Your task to perform on an android device: turn on sleep mode Image 0: 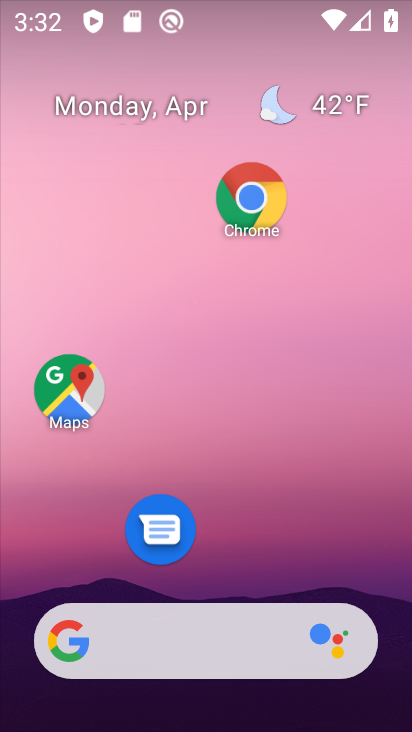
Step 0: drag from (249, 568) to (201, 147)
Your task to perform on an android device: turn on sleep mode Image 1: 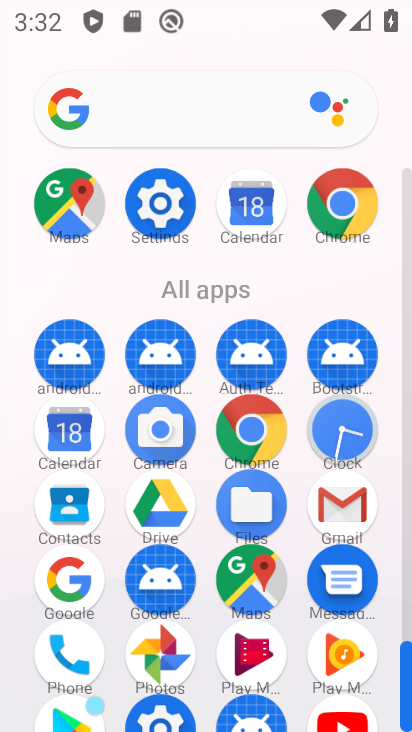
Step 1: click (180, 196)
Your task to perform on an android device: turn on sleep mode Image 2: 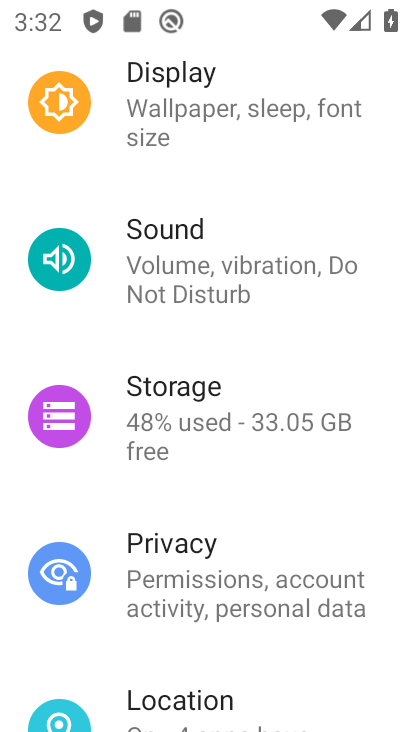
Step 2: click (194, 137)
Your task to perform on an android device: turn on sleep mode Image 3: 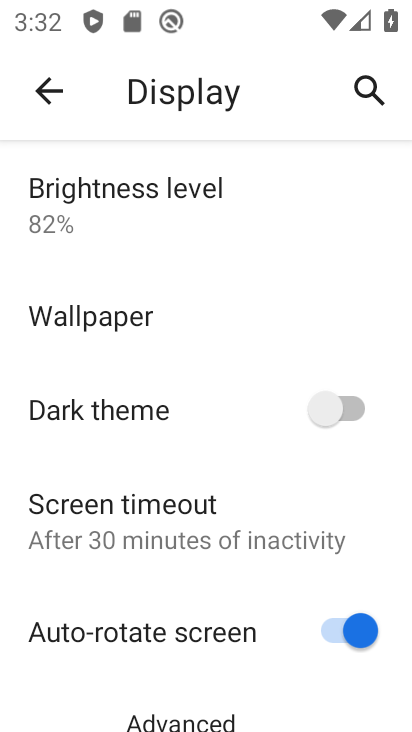
Step 3: click (208, 499)
Your task to perform on an android device: turn on sleep mode Image 4: 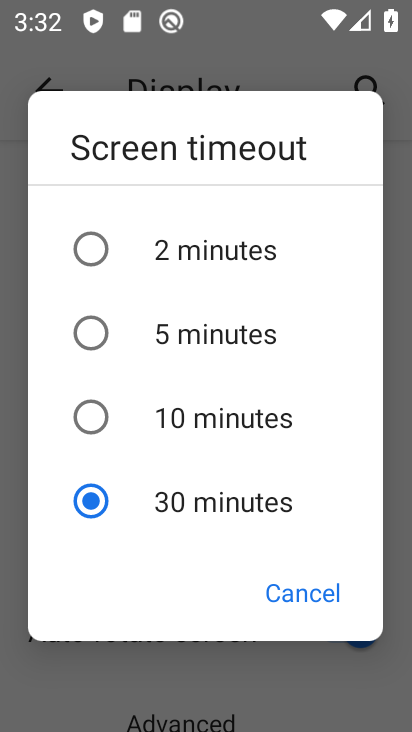
Step 4: click (218, 325)
Your task to perform on an android device: turn on sleep mode Image 5: 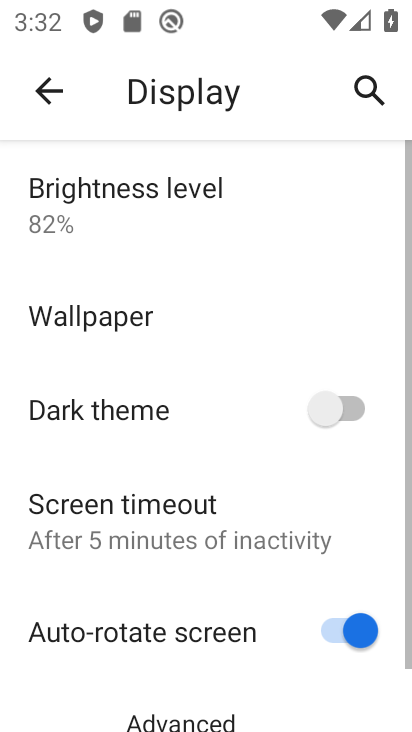
Step 5: task complete